Your task to perform on an android device: Is it going to rain this weekend? Image 0: 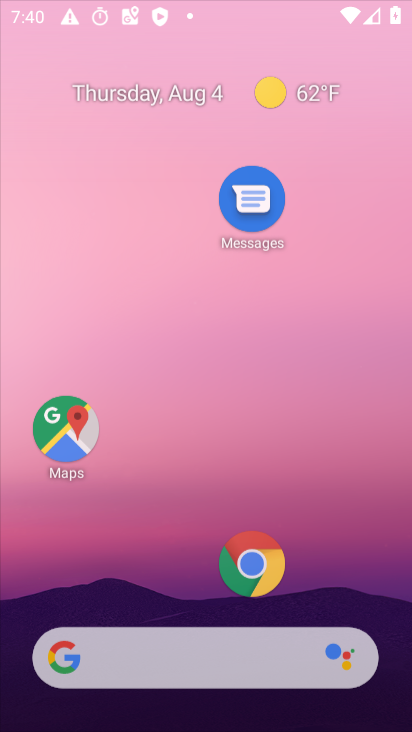
Step 0: press home button
Your task to perform on an android device: Is it going to rain this weekend? Image 1: 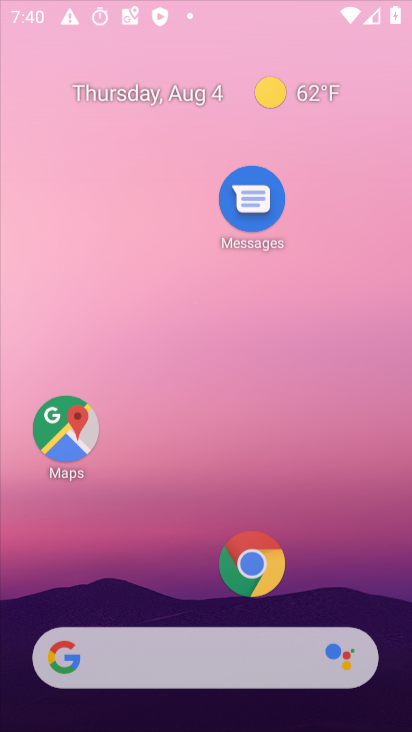
Step 1: click (173, 185)
Your task to perform on an android device: Is it going to rain this weekend? Image 2: 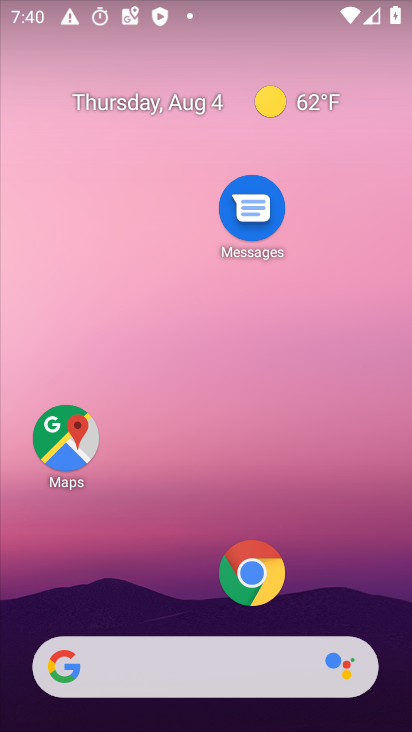
Step 2: click (57, 674)
Your task to perform on an android device: Is it going to rain this weekend? Image 3: 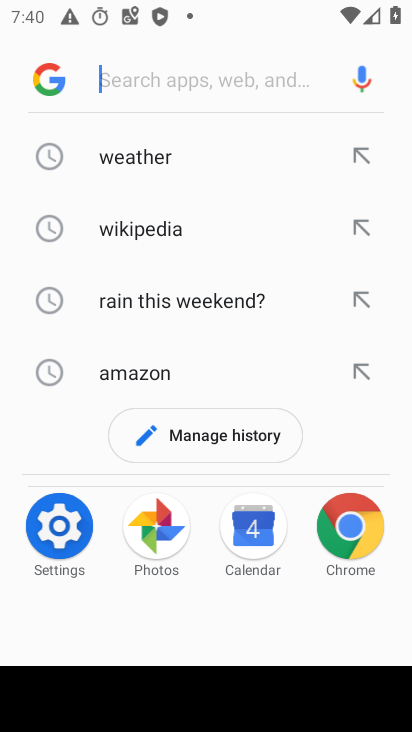
Step 3: click (195, 300)
Your task to perform on an android device: Is it going to rain this weekend? Image 4: 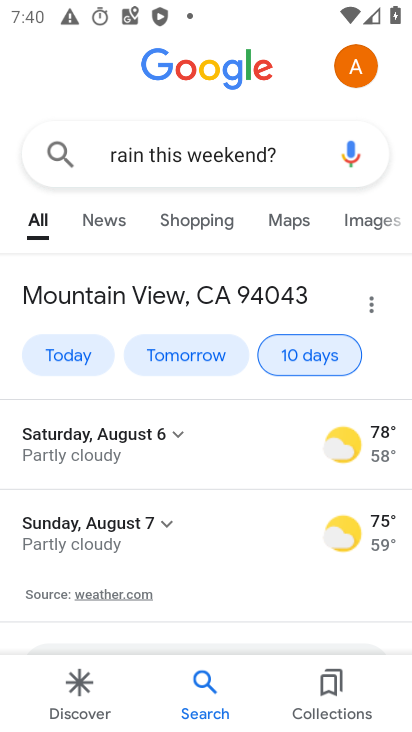
Step 4: task complete